Your task to perform on an android device: see tabs open on other devices in the chrome app Image 0: 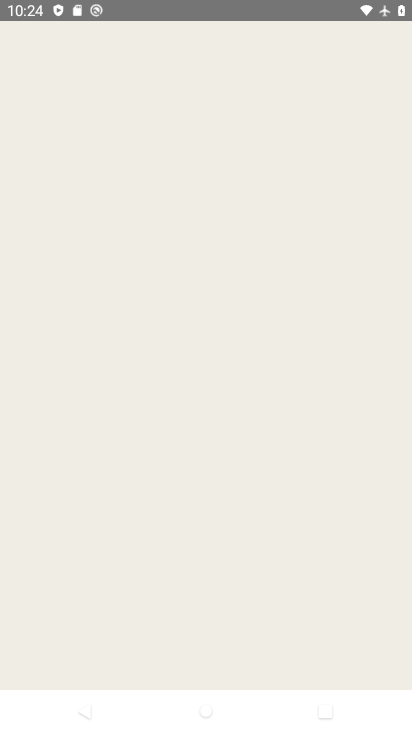
Step 0: press home button
Your task to perform on an android device: see tabs open on other devices in the chrome app Image 1: 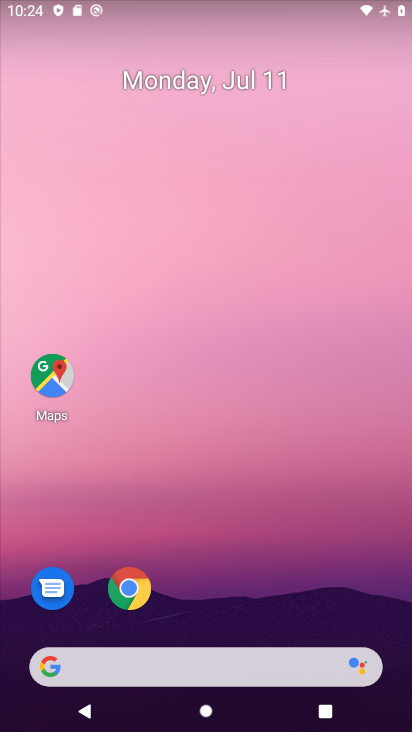
Step 1: click (135, 578)
Your task to perform on an android device: see tabs open on other devices in the chrome app Image 2: 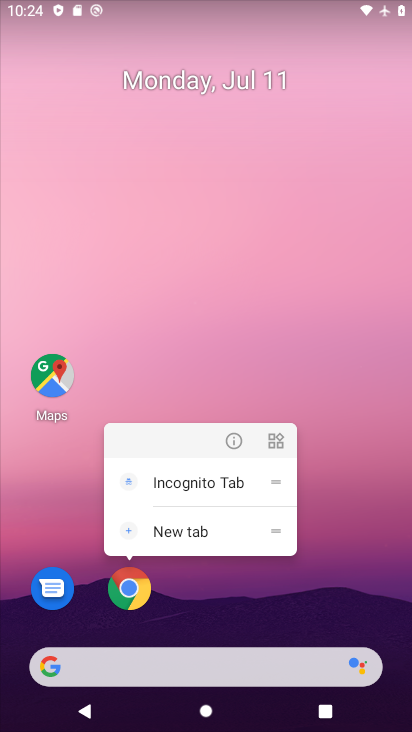
Step 2: click (132, 593)
Your task to perform on an android device: see tabs open on other devices in the chrome app Image 3: 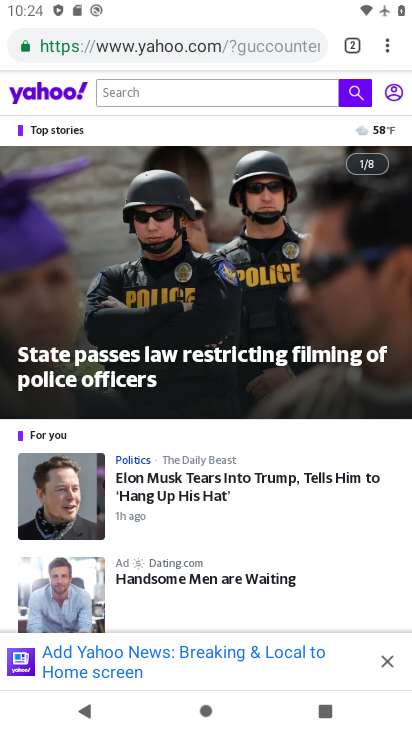
Step 3: task complete